Your task to perform on an android device: Show me productivity apps on the Play Store Image 0: 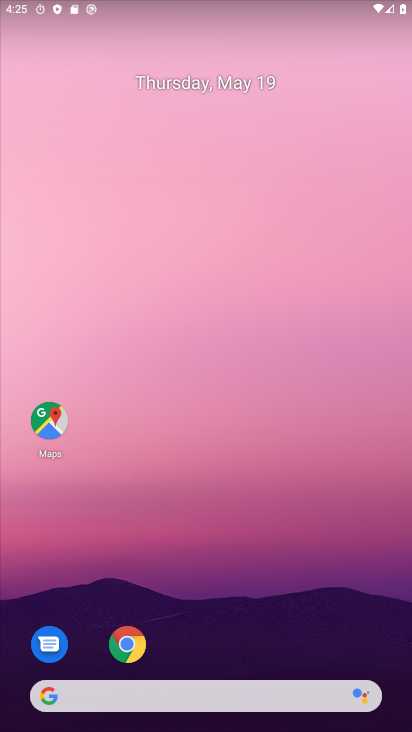
Step 0: drag from (166, 671) to (210, 200)
Your task to perform on an android device: Show me productivity apps on the Play Store Image 1: 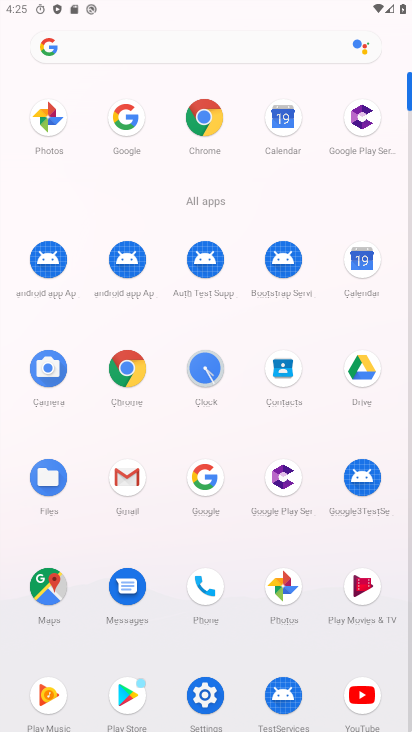
Step 1: click (139, 697)
Your task to perform on an android device: Show me productivity apps on the Play Store Image 2: 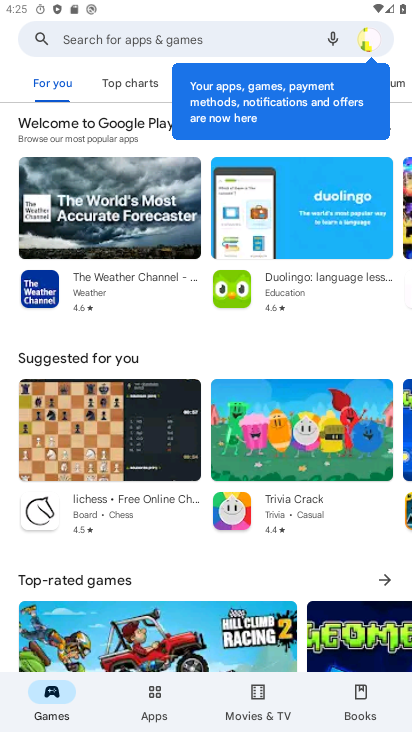
Step 2: click (155, 695)
Your task to perform on an android device: Show me productivity apps on the Play Store Image 3: 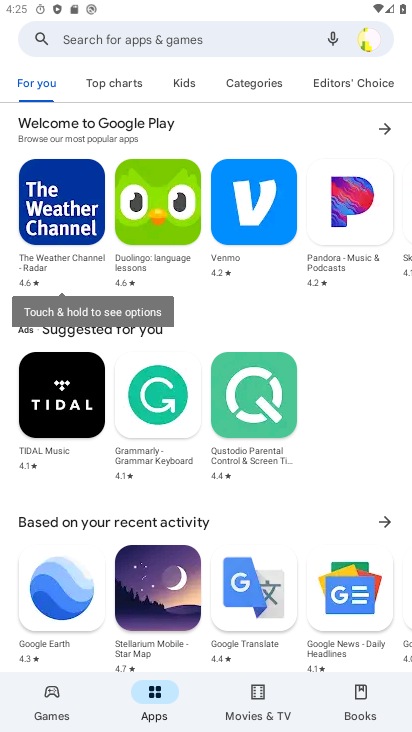
Step 3: task complete